Your task to perform on an android device: turn off location history Image 0: 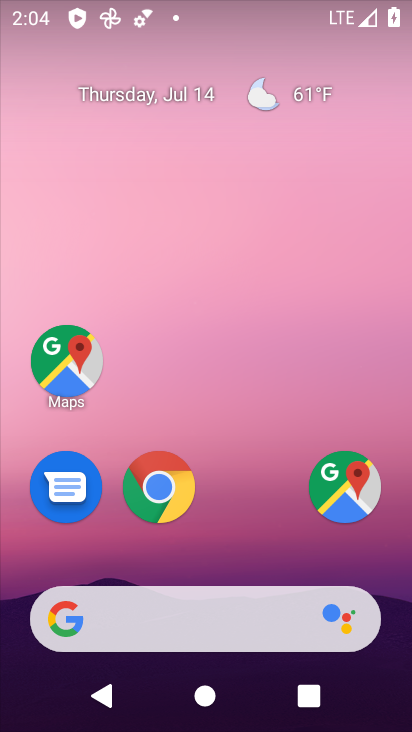
Step 0: drag from (260, 542) to (341, 108)
Your task to perform on an android device: turn off location history Image 1: 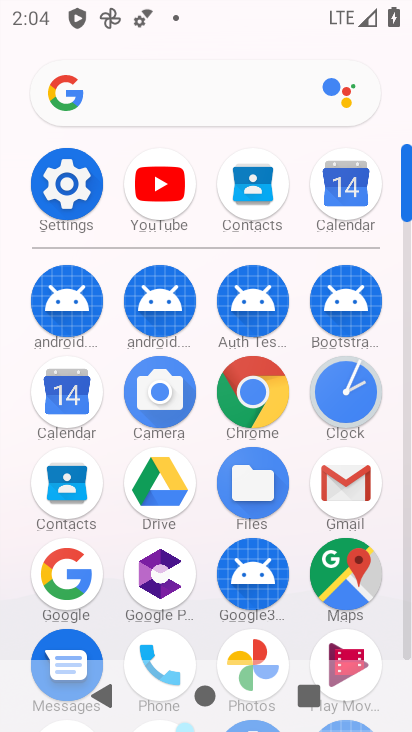
Step 1: click (71, 200)
Your task to perform on an android device: turn off location history Image 2: 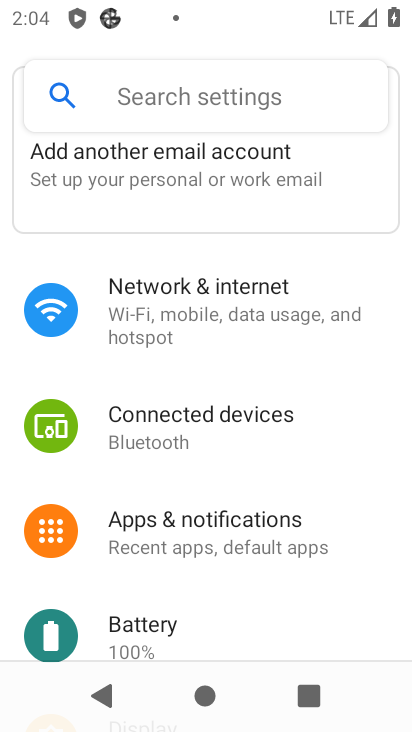
Step 2: drag from (333, 456) to (394, 213)
Your task to perform on an android device: turn off location history Image 3: 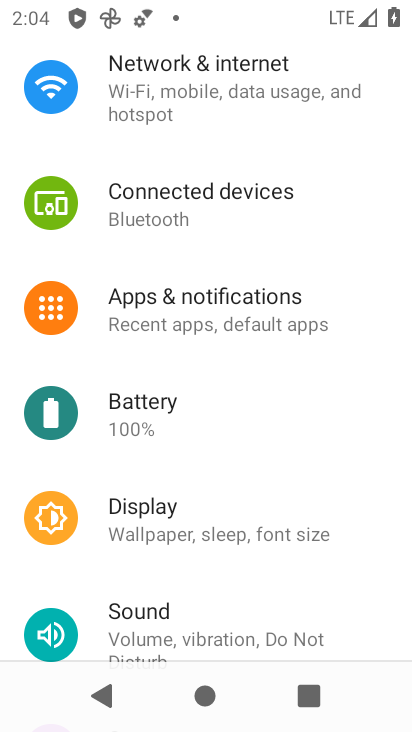
Step 3: drag from (366, 479) to (398, 279)
Your task to perform on an android device: turn off location history Image 4: 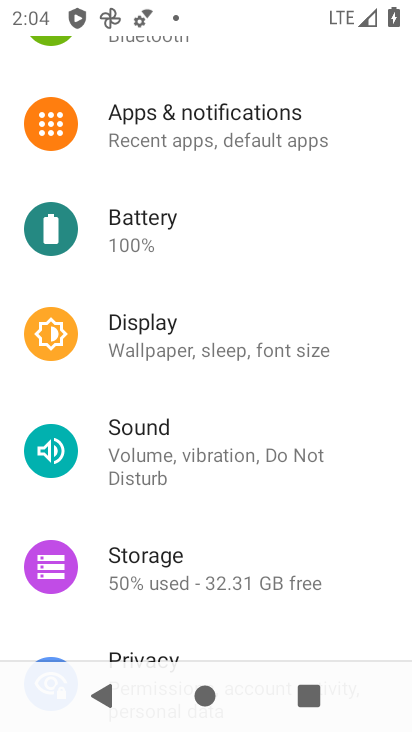
Step 4: drag from (364, 531) to (376, 391)
Your task to perform on an android device: turn off location history Image 5: 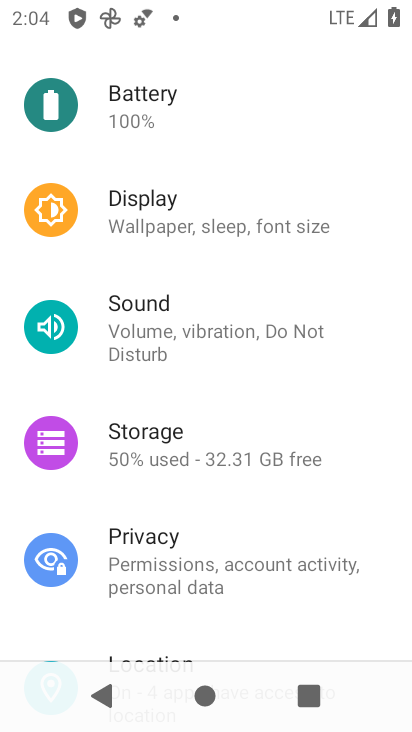
Step 5: drag from (371, 561) to (380, 427)
Your task to perform on an android device: turn off location history Image 6: 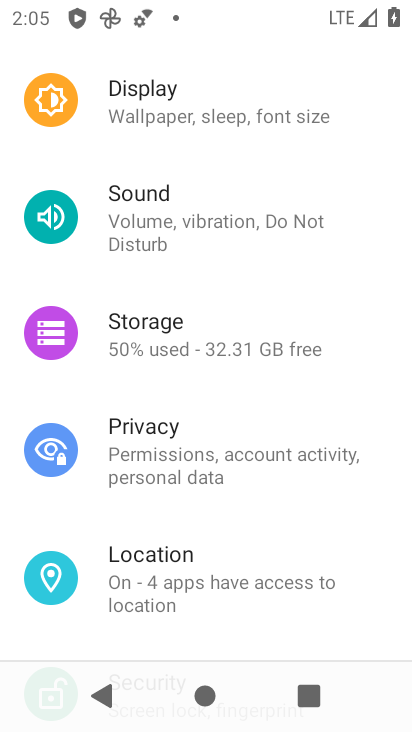
Step 6: drag from (365, 294) to (359, 421)
Your task to perform on an android device: turn off location history Image 7: 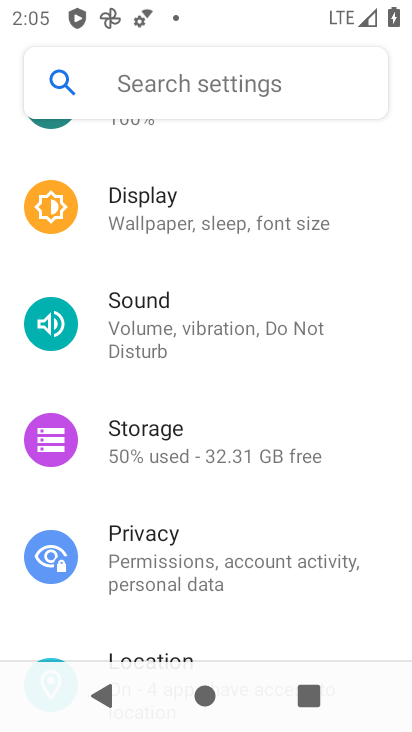
Step 7: drag from (373, 286) to (360, 406)
Your task to perform on an android device: turn off location history Image 8: 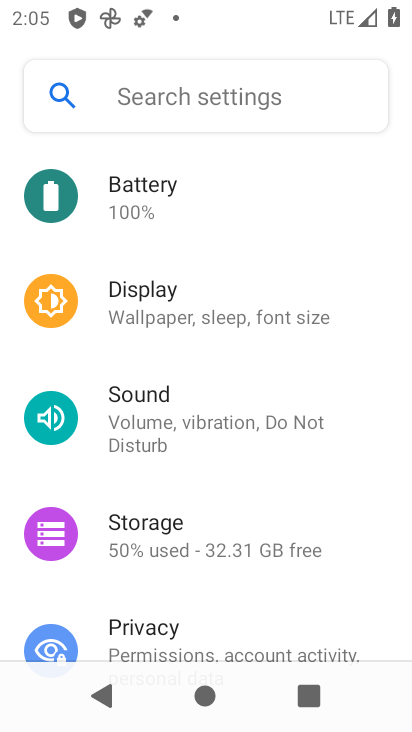
Step 8: drag from (361, 260) to (334, 437)
Your task to perform on an android device: turn off location history Image 9: 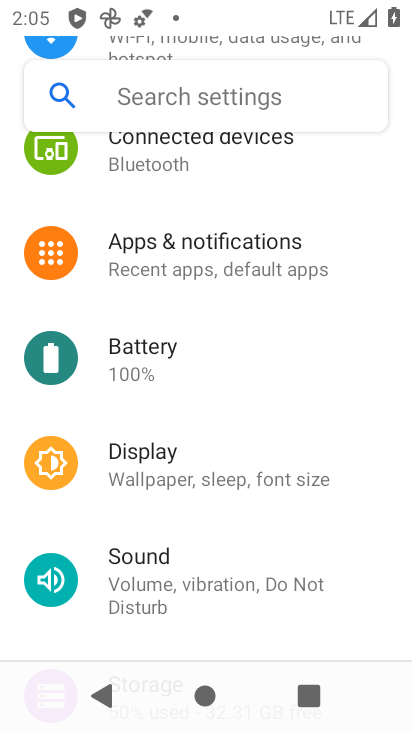
Step 9: drag from (330, 341) to (325, 429)
Your task to perform on an android device: turn off location history Image 10: 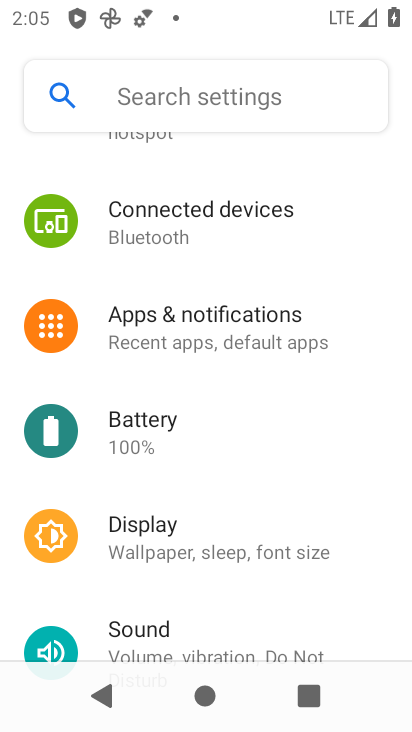
Step 10: drag from (339, 284) to (339, 457)
Your task to perform on an android device: turn off location history Image 11: 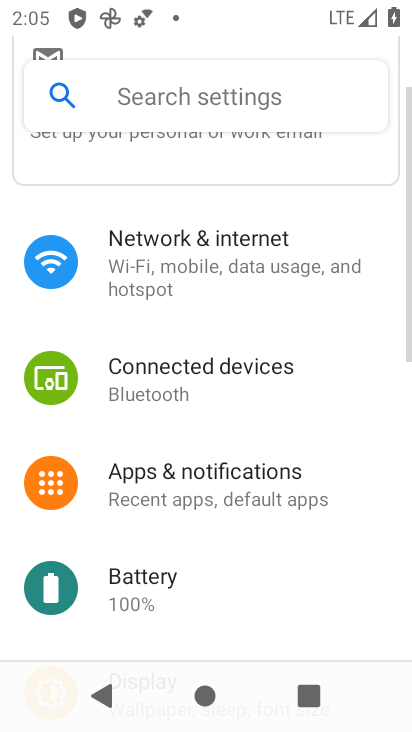
Step 11: drag from (334, 564) to (341, 428)
Your task to perform on an android device: turn off location history Image 12: 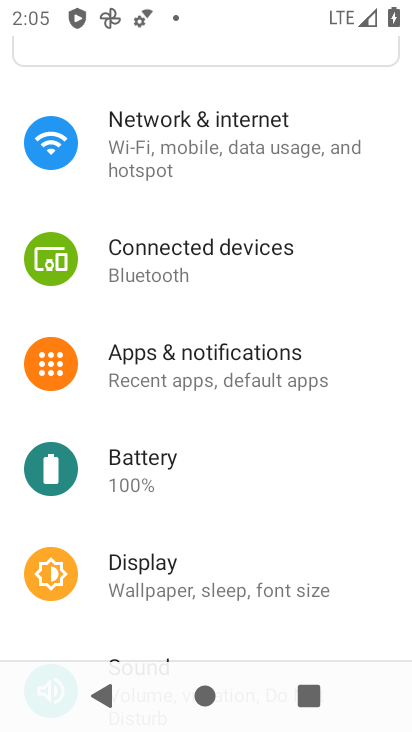
Step 12: drag from (341, 529) to (344, 417)
Your task to perform on an android device: turn off location history Image 13: 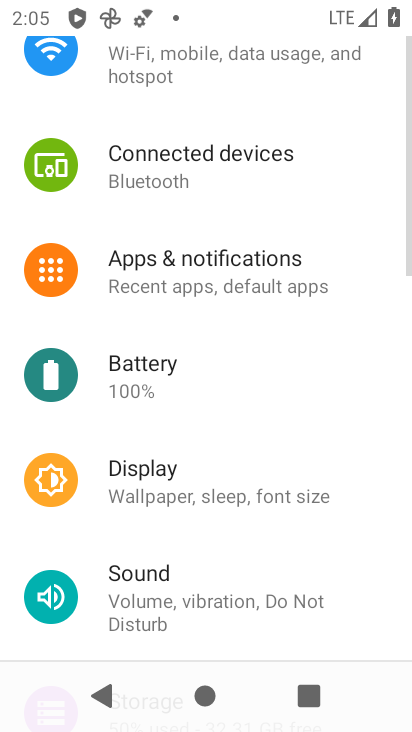
Step 13: drag from (350, 567) to (350, 424)
Your task to perform on an android device: turn off location history Image 14: 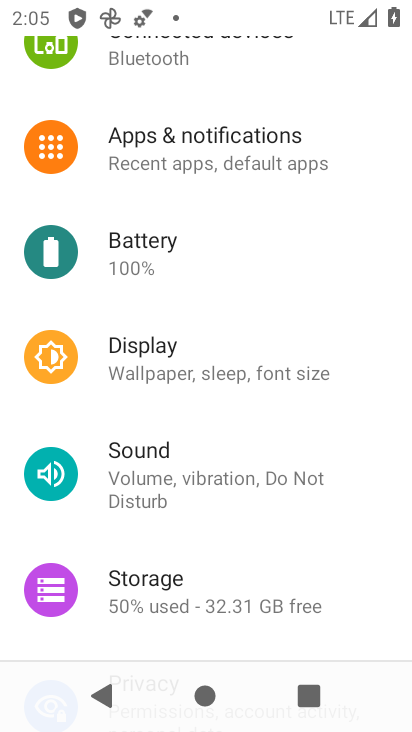
Step 14: drag from (353, 535) to (353, 415)
Your task to perform on an android device: turn off location history Image 15: 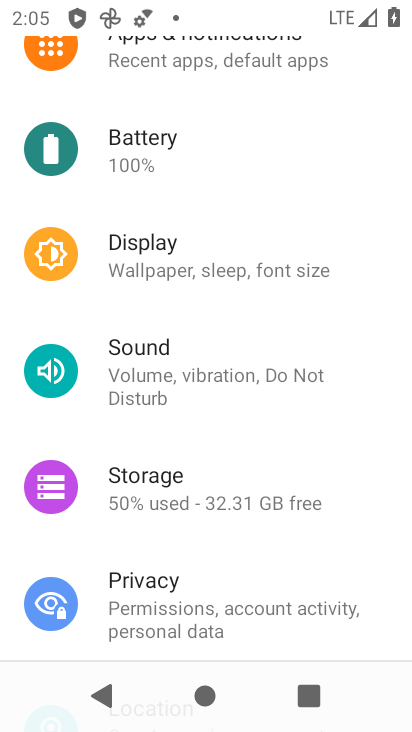
Step 15: drag from (348, 543) to (356, 415)
Your task to perform on an android device: turn off location history Image 16: 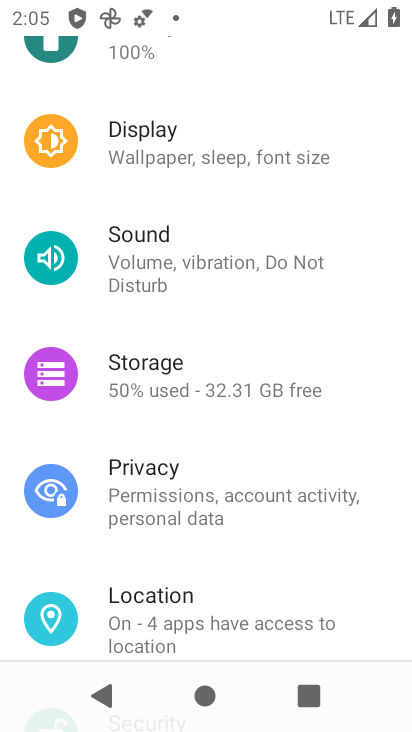
Step 16: click (332, 583)
Your task to perform on an android device: turn off location history Image 17: 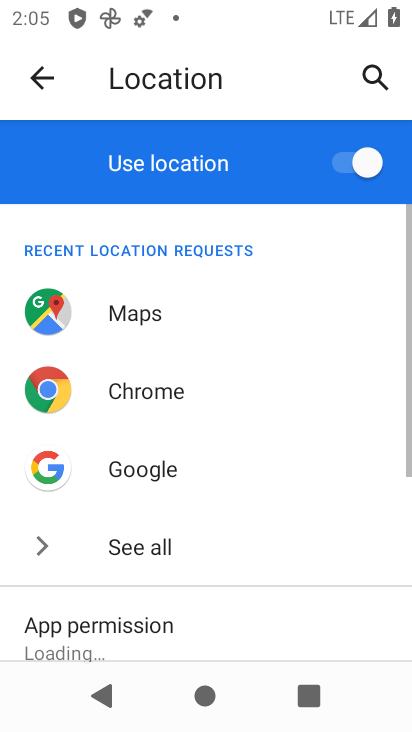
Step 17: drag from (343, 572) to (351, 439)
Your task to perform on an android device: turn off location history Image 18: 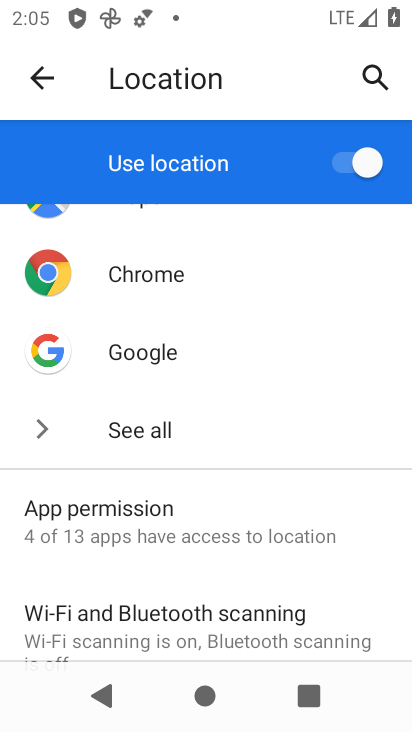
Step 18: drag from (356, 567) to (362, 452)
Your task to perform on an android device: turn off location history Image 19: 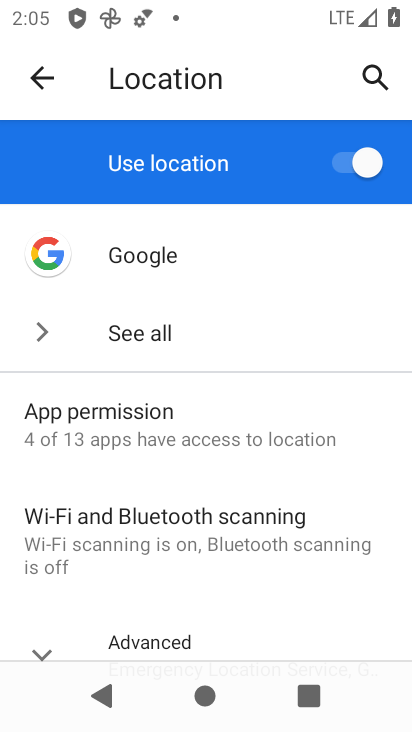
Step 19: drag from (351, 579) to (361, 445)
Your task to perform on an android device: turn off location history Image 20: 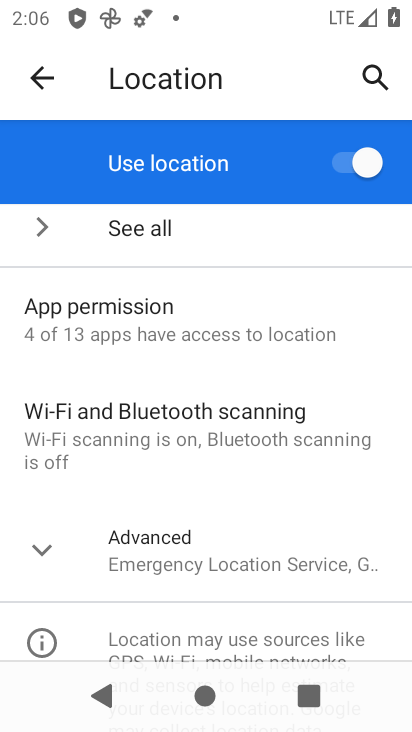
Step 20: click (246, 563)
Your task to perform on an android device: turn off location history Image 21: 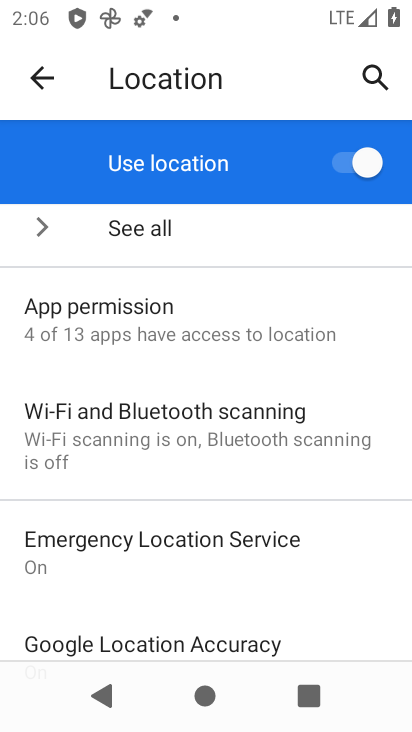
Step 21: drag from (313, 582) to (343, 475)
Your task to perform on an android device: turn off location history Image 22: 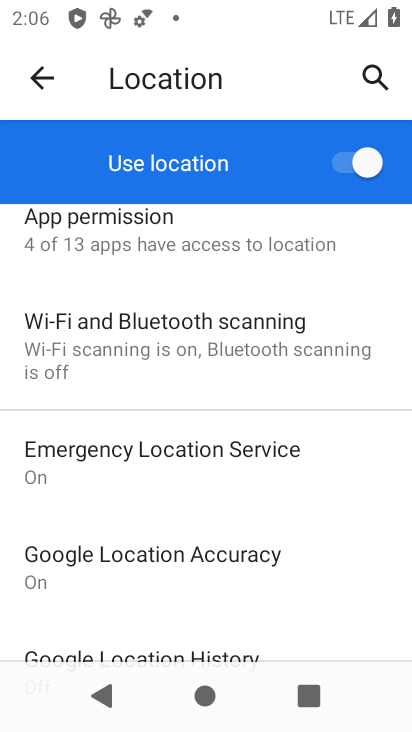
Step 22: drag from (352, 589) to (374, 456)
Your task to perform on an android device: turn off location history Image 23: 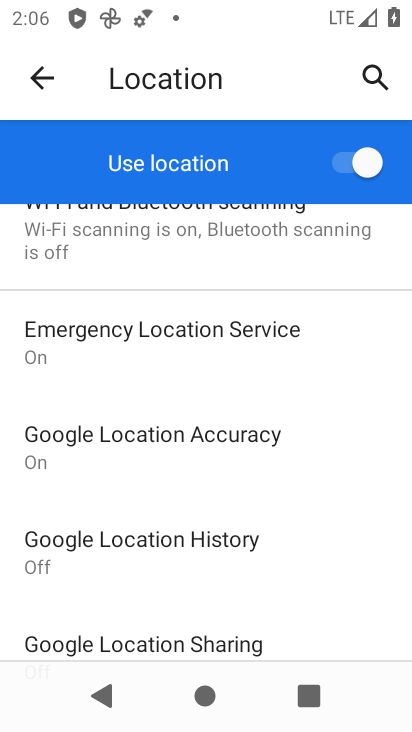
Step 23: click (218, 545)
Your task to perform on an android device: turn off location history Image 24: 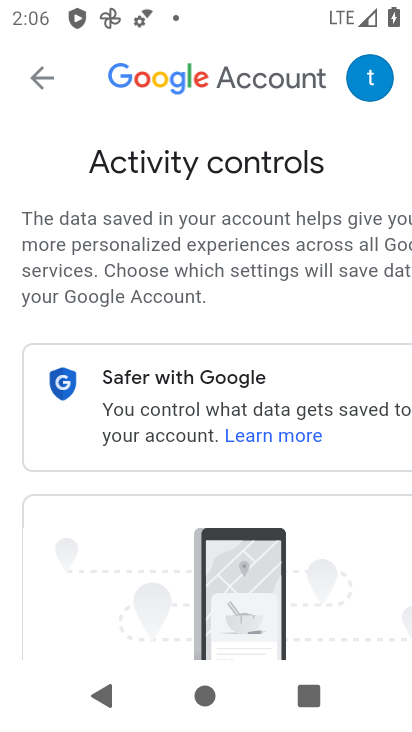
Step 24: task complete